Your task to perform on an android device: allow cookies in the chrome app Image 0: 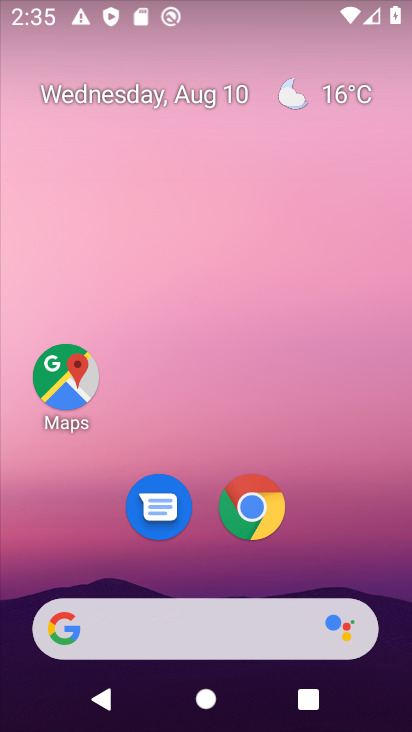
Step 0: drag from (364, 543) to (142, 2)
Your task to perform on an android device: allow cookies in the chrome app Image 1: 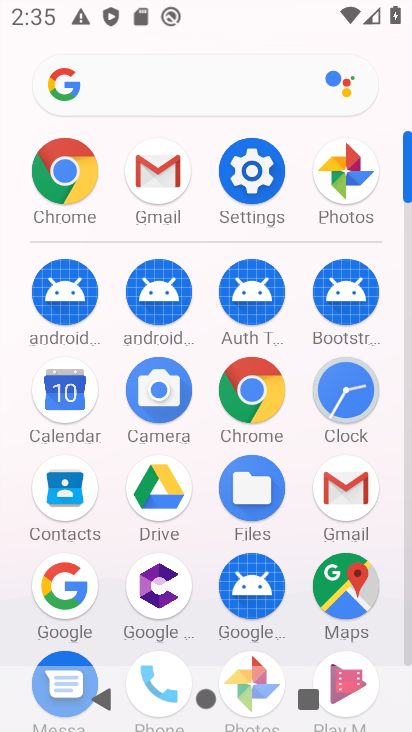
Step 1: click (257, 396)
Your task to perform on an android device: allow cookies in the chrome app Image 2: 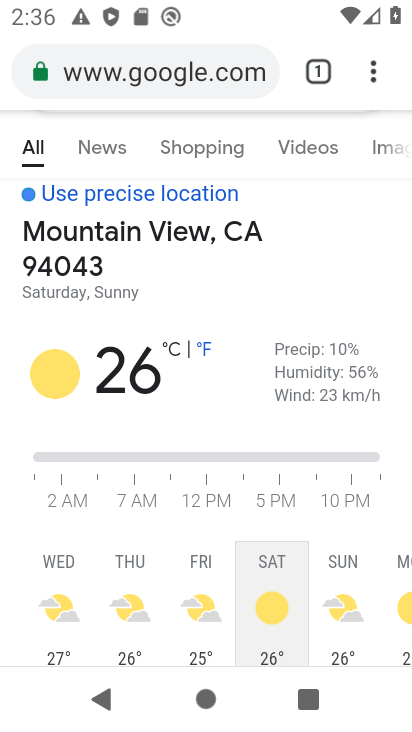
Step 2: drag from (385, 72) to (189, 497)
Your task to perform on an android device: allow cookies in the chrome app Image 3: 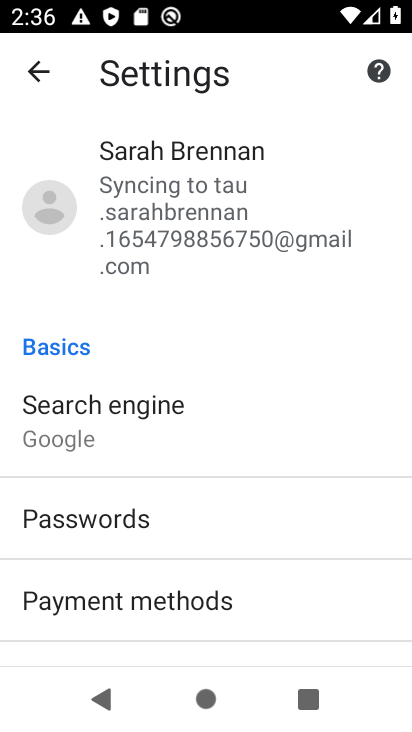
Step 3: drag from (379, 599) to (259, 150)
Your task to perform on an android device: allow cookies in the chrome app Image 4: 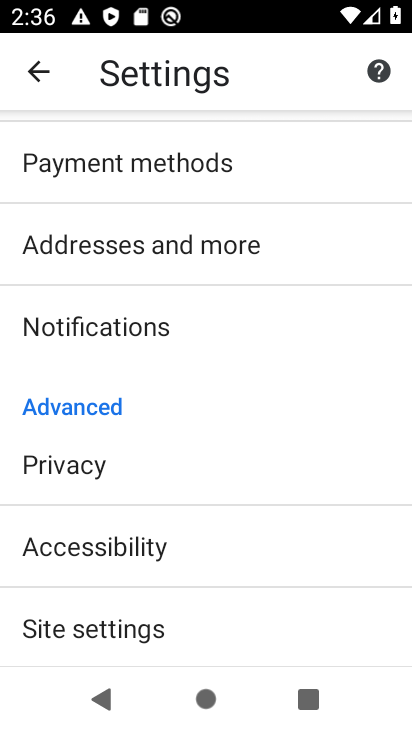
Step 4: click (121, 635)
Your task to perform on an android device: allow cookies in the chrome app Image 5: 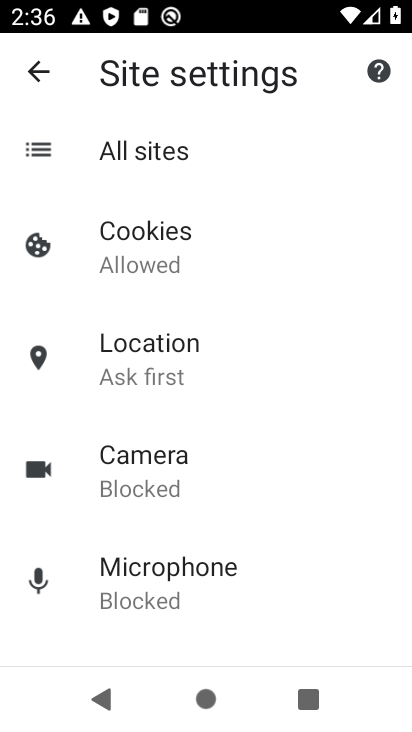
Step 5: click (146, 244)
Your task to perform on an android device: allow cookies in the chrome app Image 6: 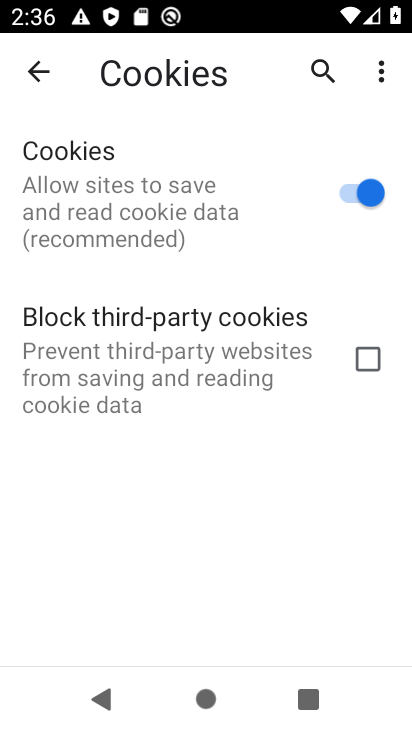
Step 6: task complete